Your task to perform on an android device: toggle pop-ups in chrome Image 0: 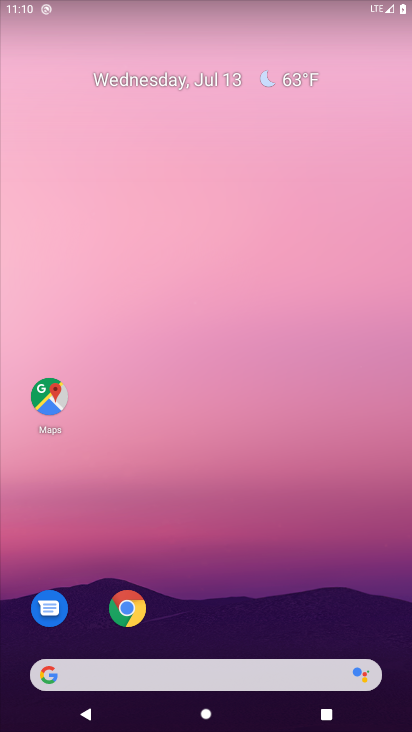
Step 0: click (128, 603)
Your task to perform on an android device: toggle pop-ups in chrome Image 1: 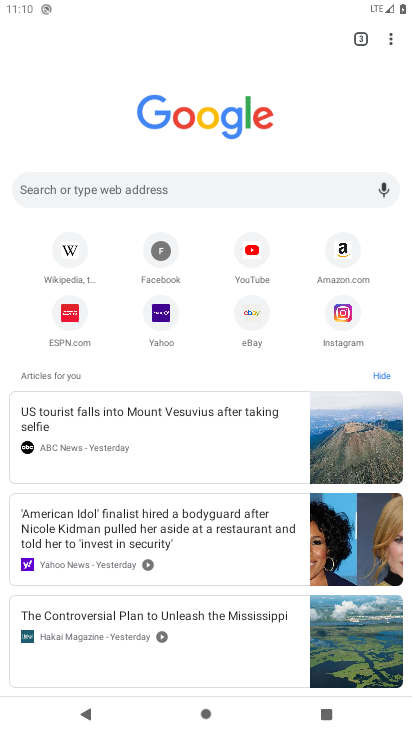
Step 1: drag from (388, 39) to (250, 332)
Your task to perform on an android device: toggle pop-ups in chrome Image 2: 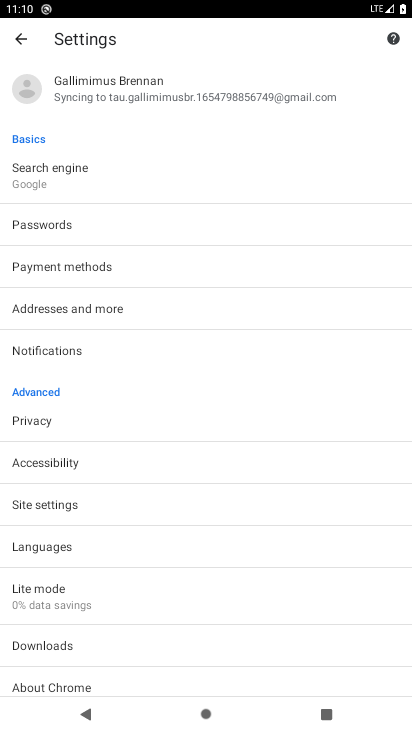
Step 2: click (54, 498)
Your task to perform on an android device: toggle pop-ups in chrome Image 3: 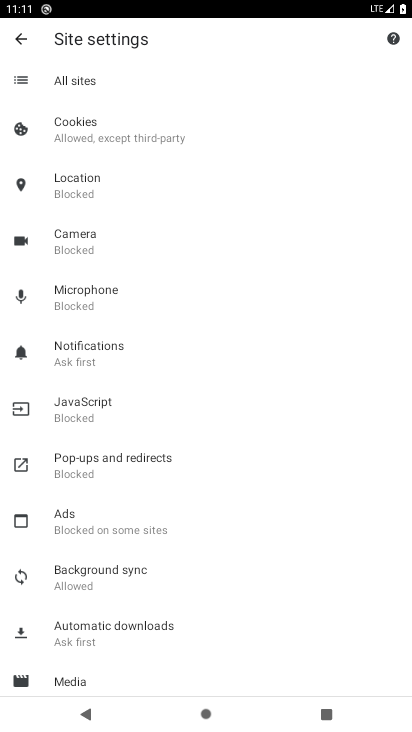
Step 3: click (106, 462)
Your task to perform on an android device: toggle pop-ups in chrome Image 4: 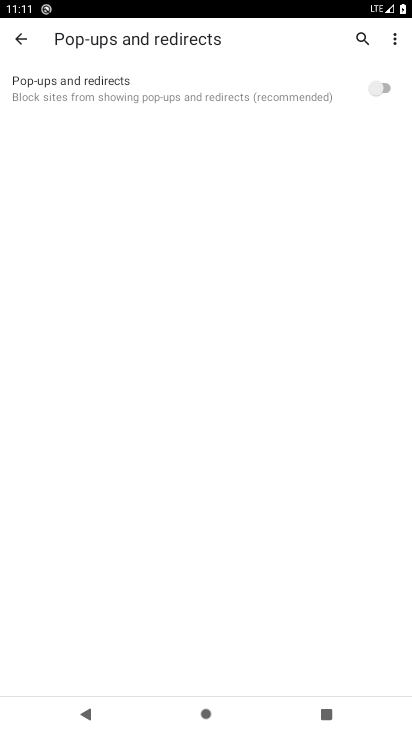
Step 4: click (298, 101)
Your task to perform on an android device: toggle pop-ups in chrome Image 5: 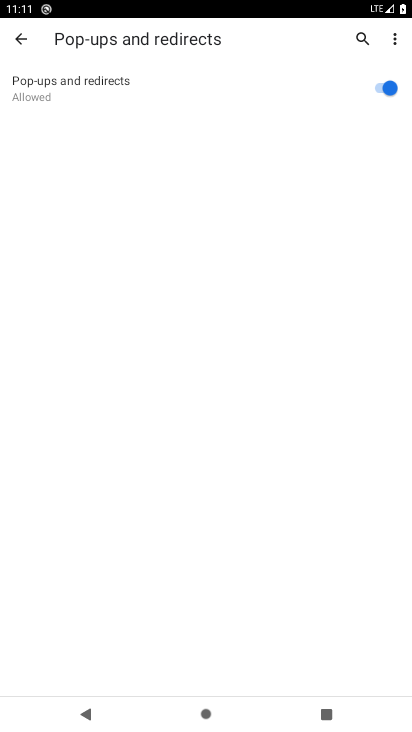
Step 5: task complete